Your task to perform on an android device: open app "Venmo" (install if not already installed) Image 0: 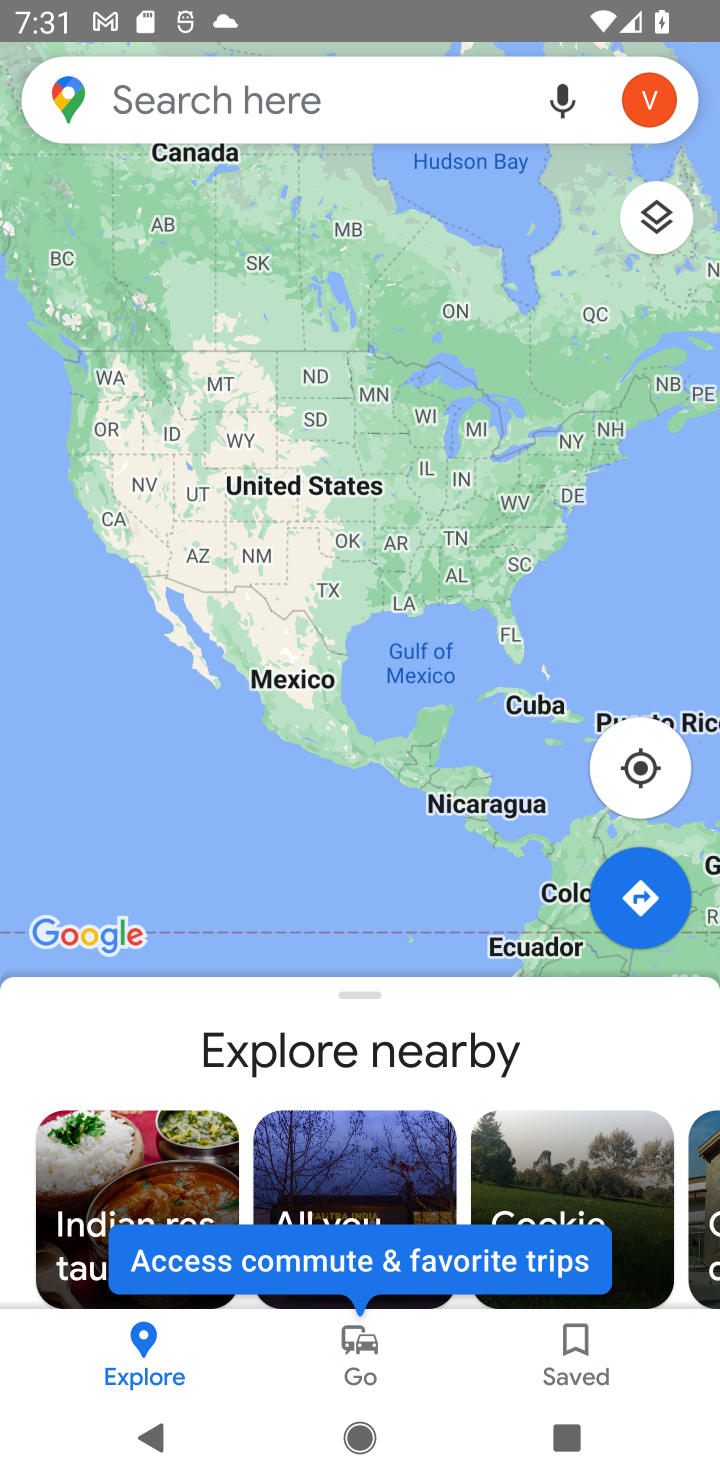
Step 0: press home button
Your task to perform on an android device: open app "Venmo" (install if not already installed) Image 1: 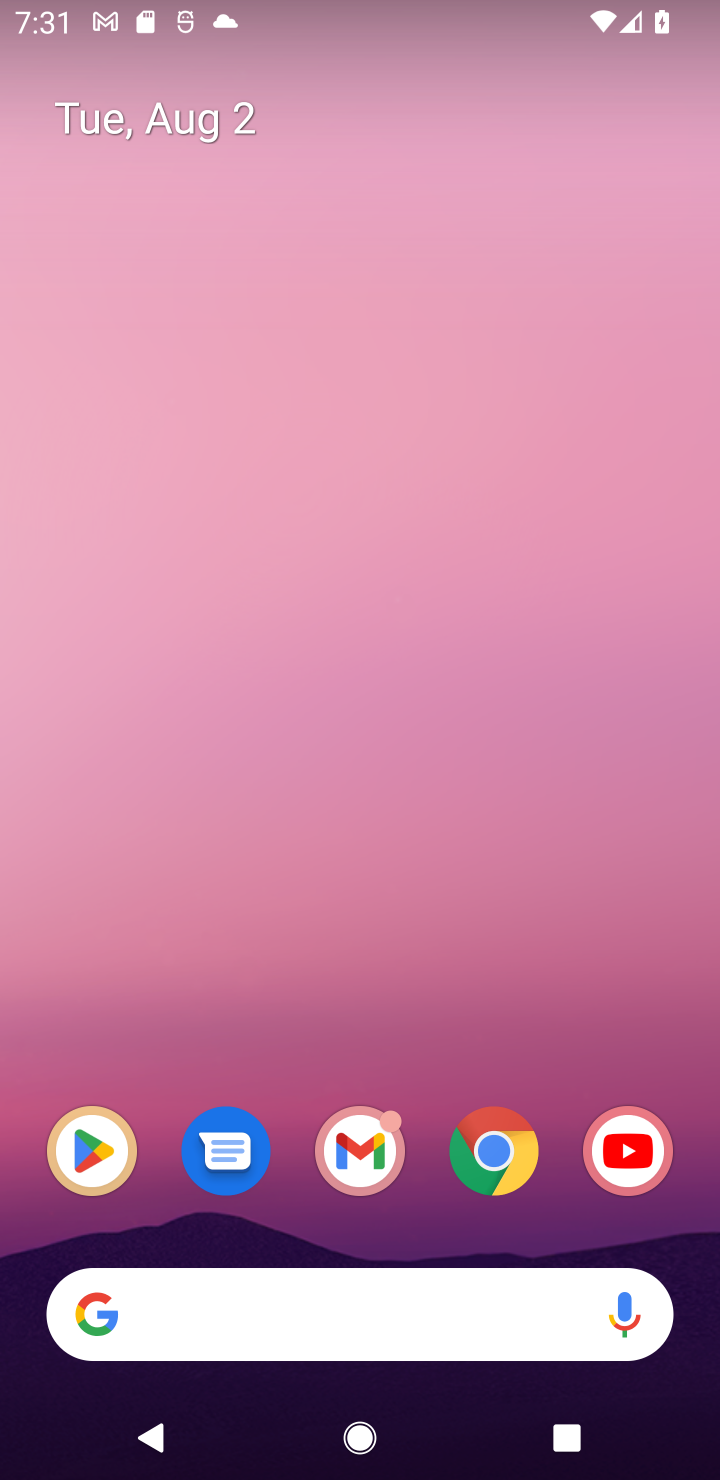
Step 1: click (96, 1153)
Your task to perform on an android device: open app "Venmo" (install if not already installed) Image 2: 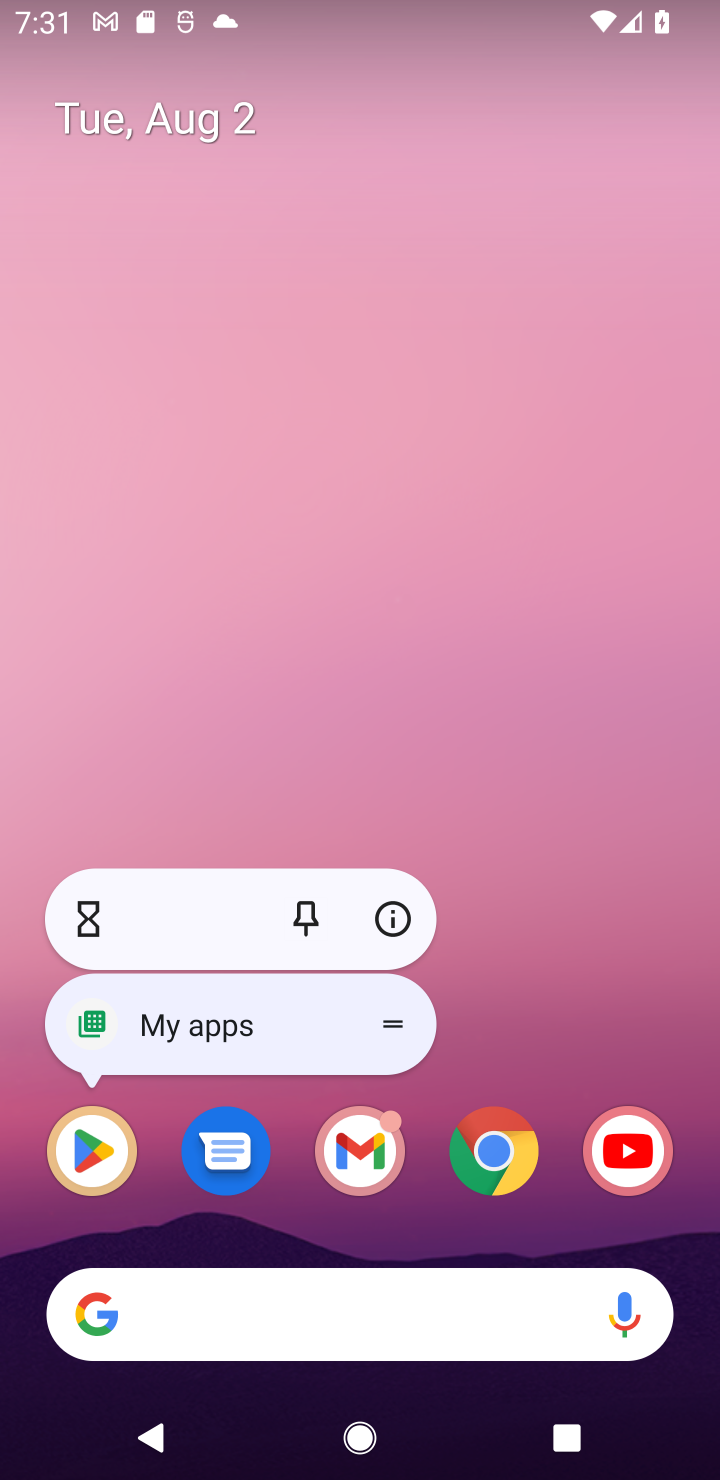
Step 2: click (96, 1153)
Your task to perform on an android device: open app "Venmo" (install if not already installed) Image 3: 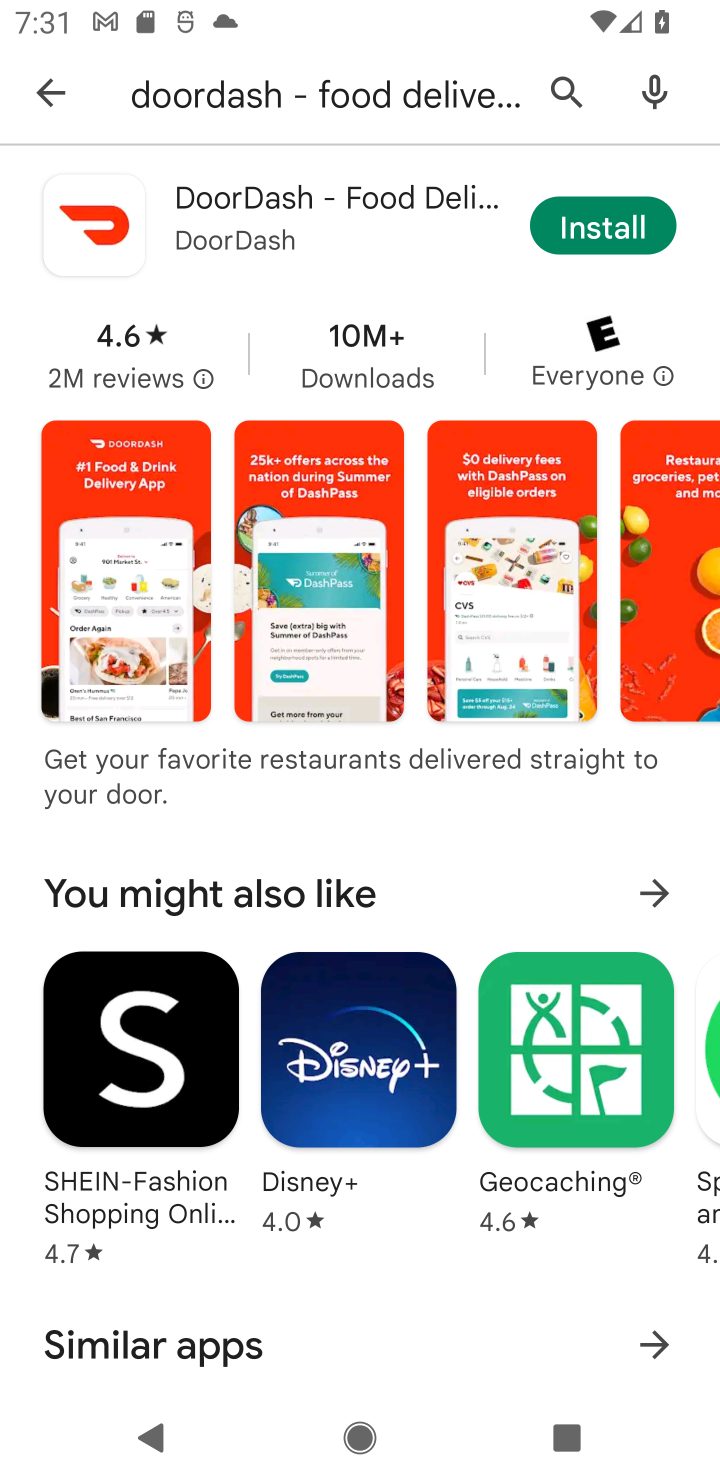
Step 3: click (552, 77)
Your task to perform on an android device: open app "Venmo" (install if not already installed) Image 4: 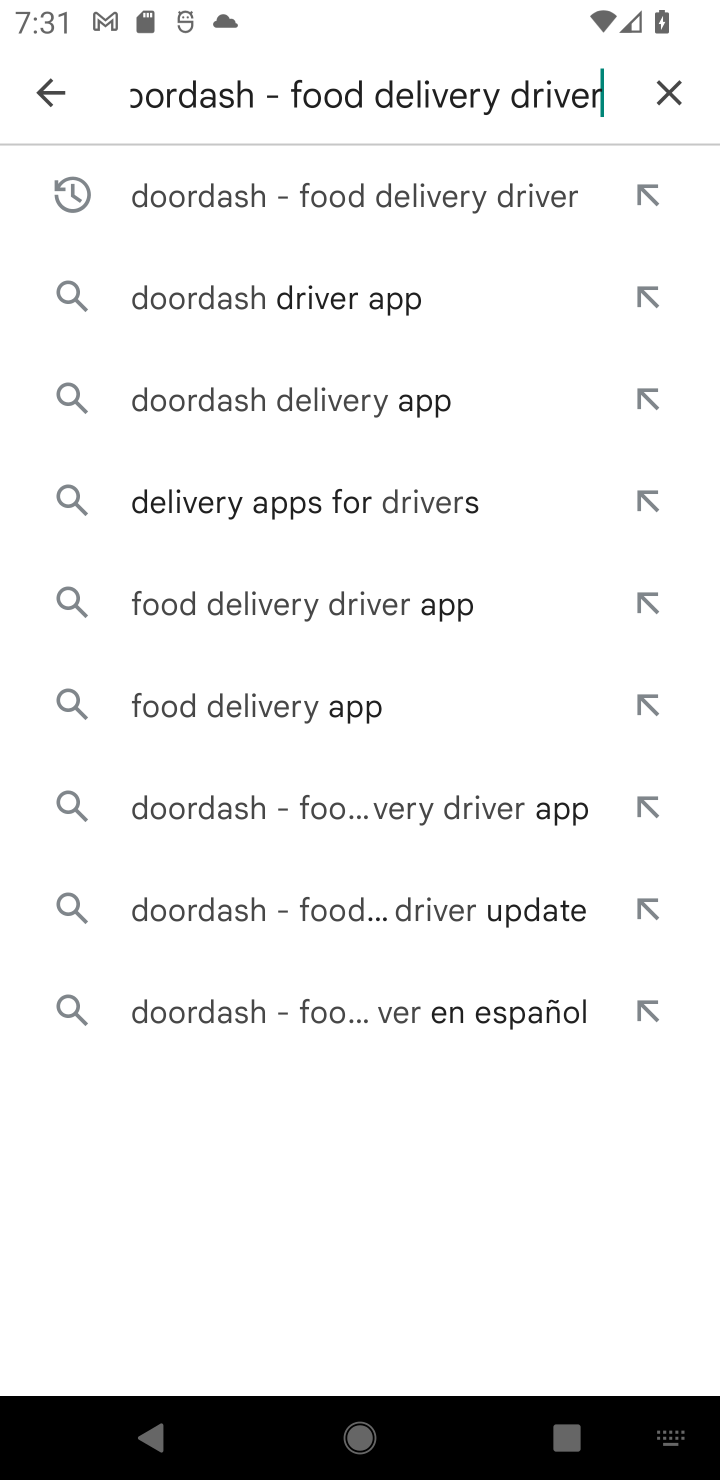
Step 4: click (670, 103)
Your task to perform on an android device: open app "Venmo" (install if not already installed) Image 5: 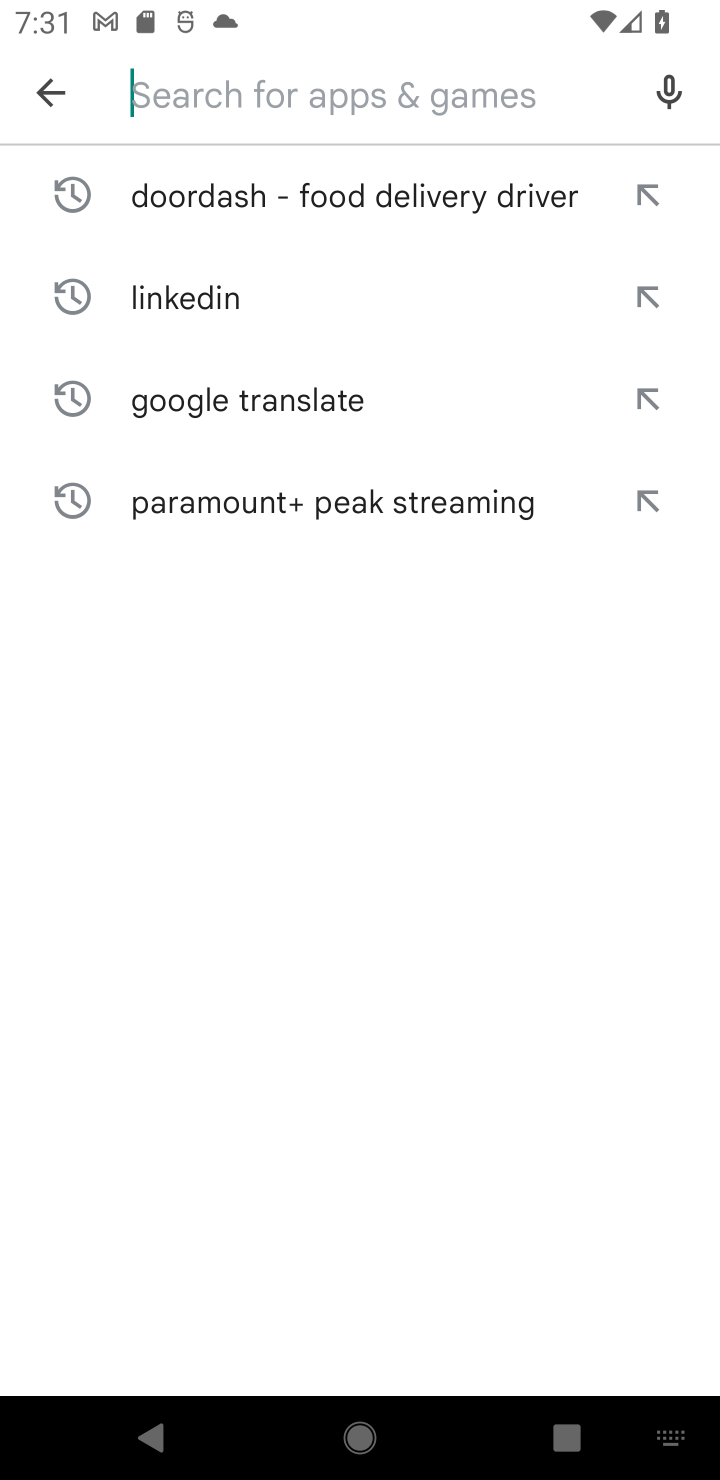
Step 5: type "Venmo"
Your task to perform on an android device: open app "Venmo" (install if not already installed) Image 6: 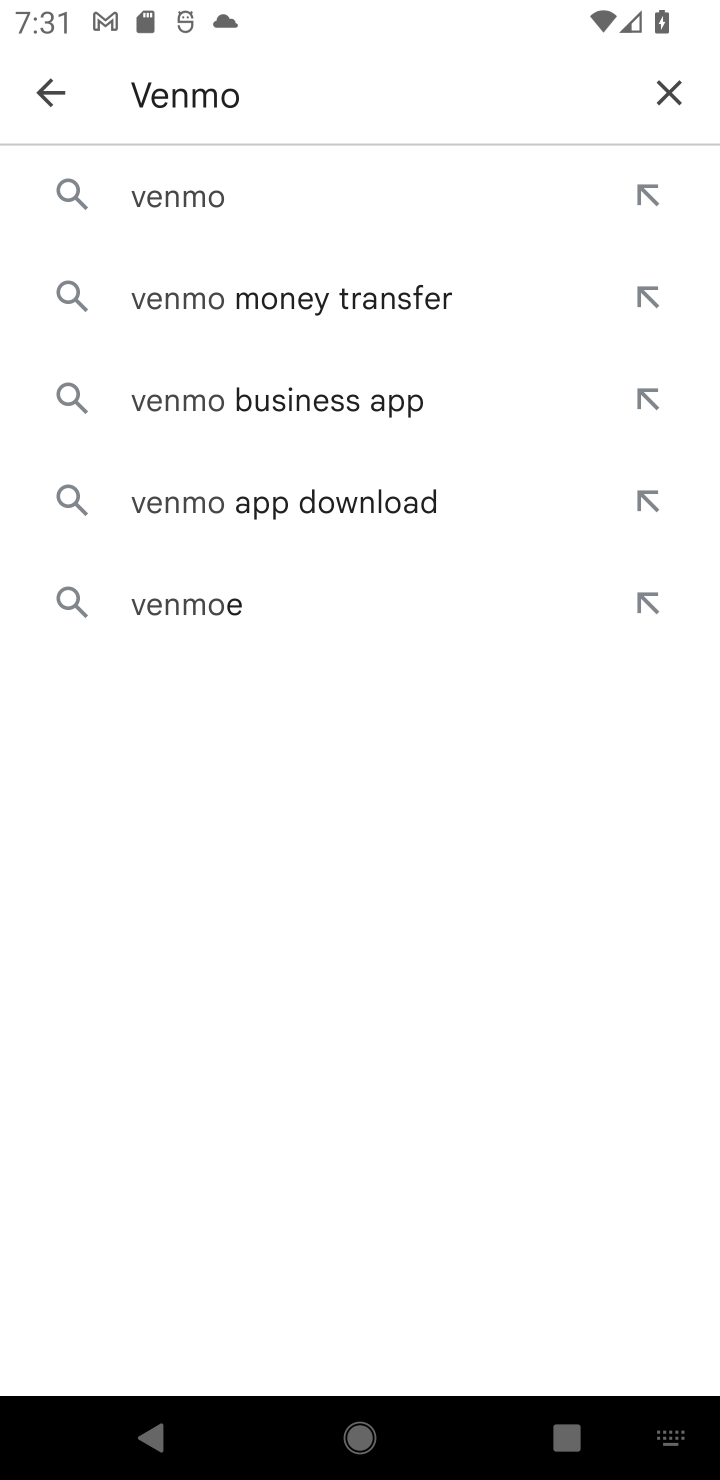
Step 6: click (137, 197)
Your task to perform on an android device: open app "Venmo" (install if not already installed) Image 7: 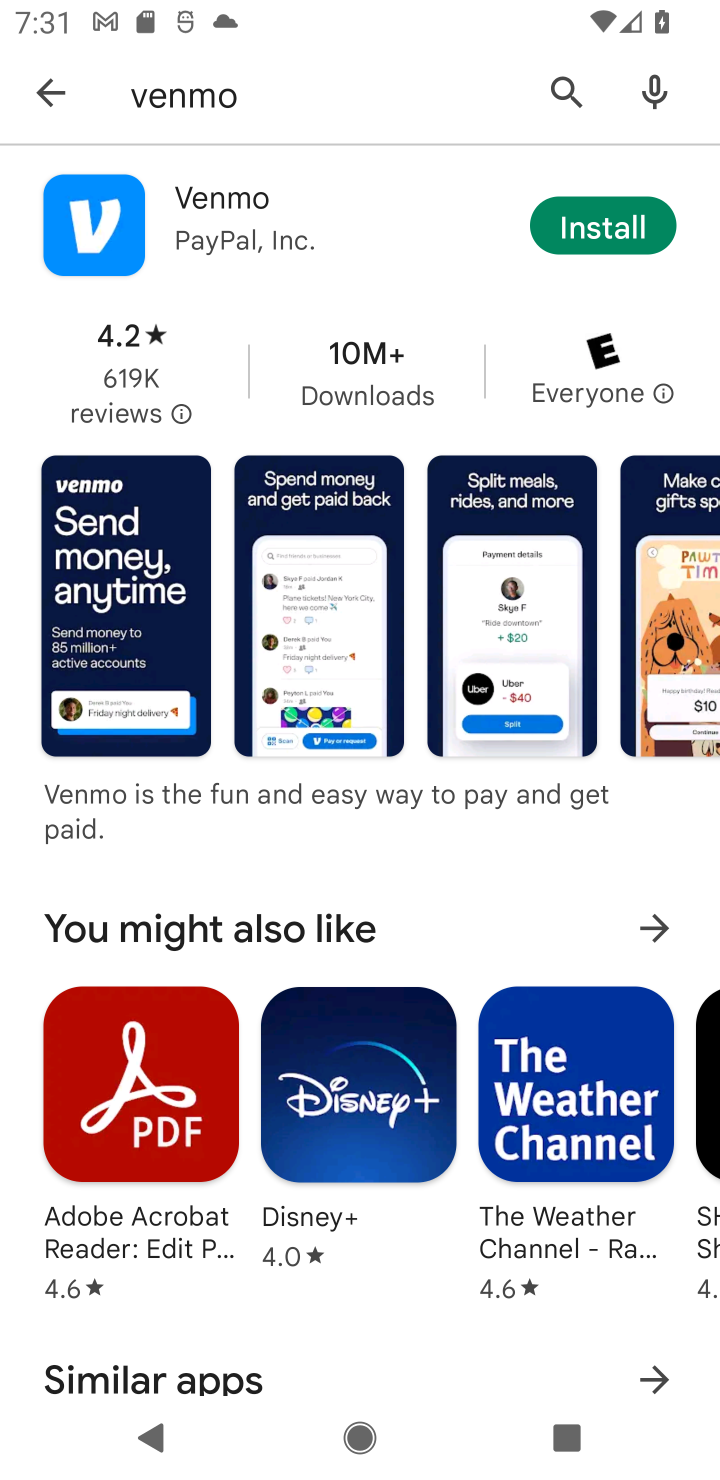
Step 7: click (673, 221)
Your task to perform on an android device: open app "Venmo" (install if not already installed) Image 8: 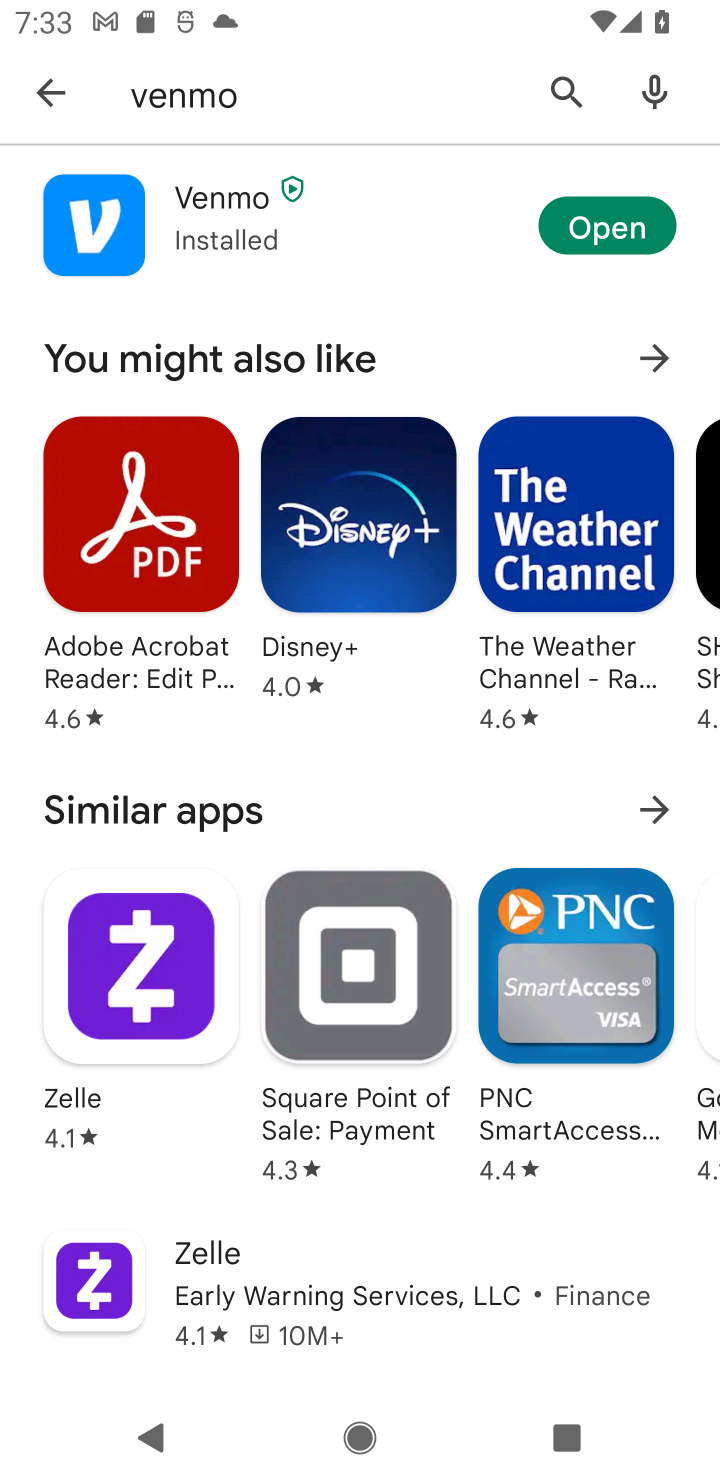
Step 8: click (652, 226)
Your task to perform on an android device: open app "Venmo" (install if not already installed) Image 9: 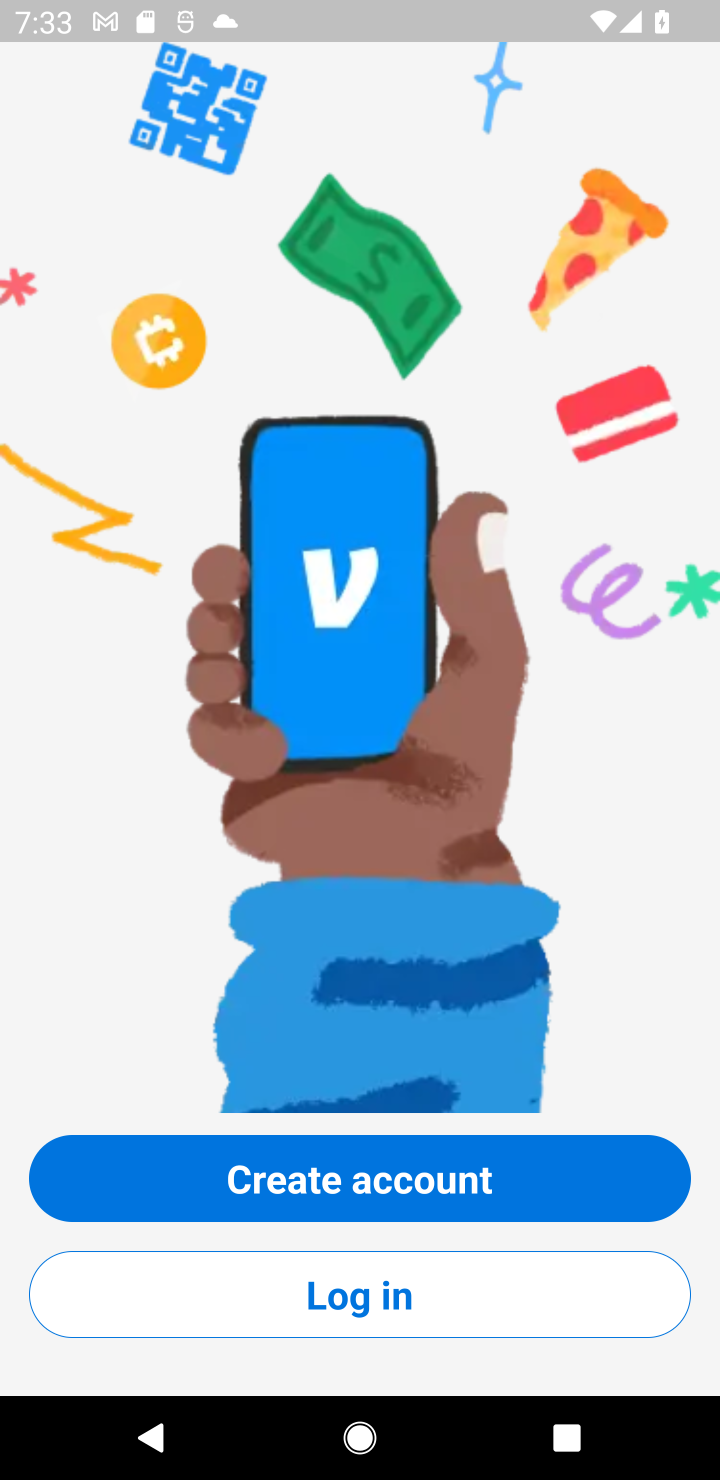
Step 9: task complete